Your task to perform on an android device: visit the assistant section in the google photos Image 0: 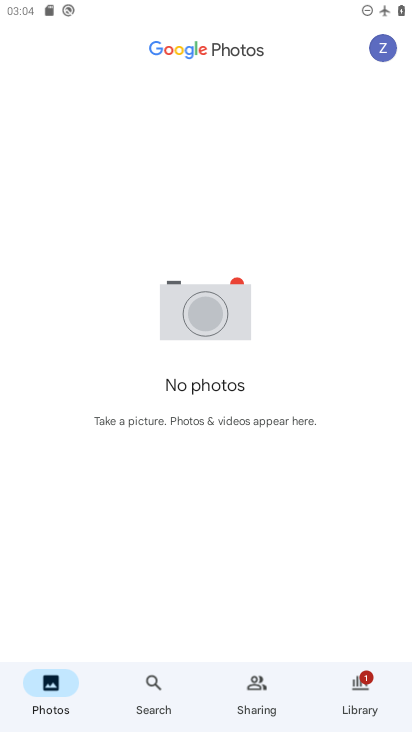
Step 0: press home button
Your task to perform on an android device: visit the assistant section in the google photos Image 1: 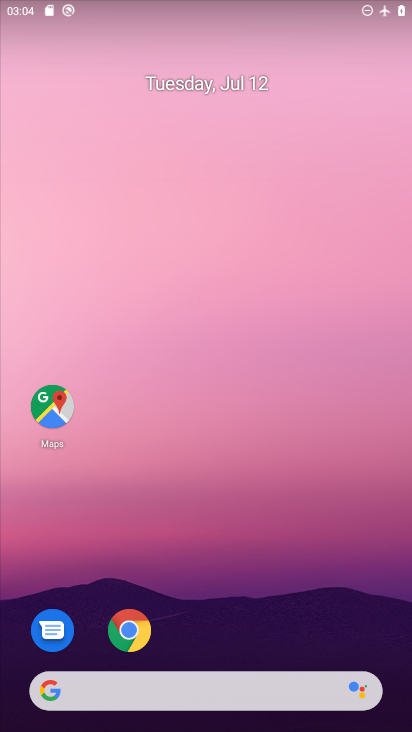
Step 1: drag from (371, 644) to (347, 215)
Your task to perform on an android device: visit the assistant section in the google photos Image 2: 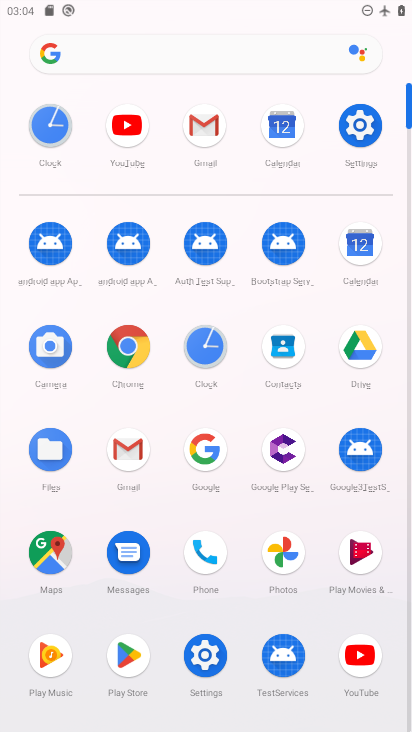
Step 2: click (283, 547)
Your task to perform on an android device: visit the assistant section in the google photos Image 3: 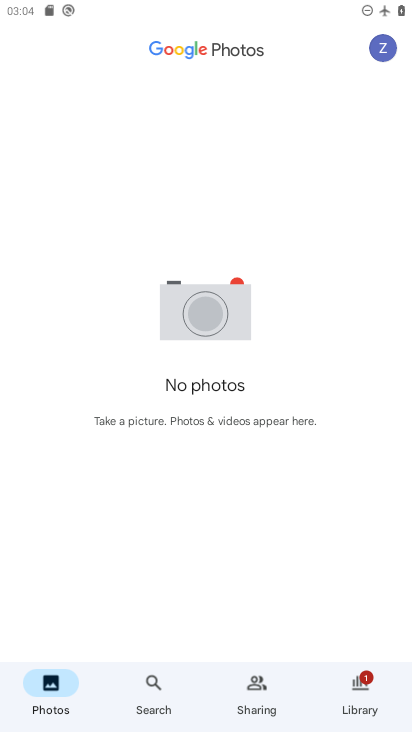
Step 3: task complete